Your task to perform on an android device: turn off translation in the chrome app Image 0: 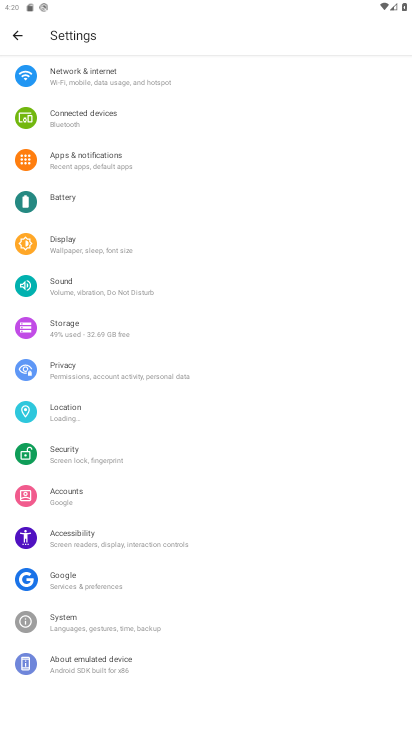
Step 0: drag from (49, 706) to (353, 33)
Your task to perform on an android device: turn off translation in the chrome app Image 1: 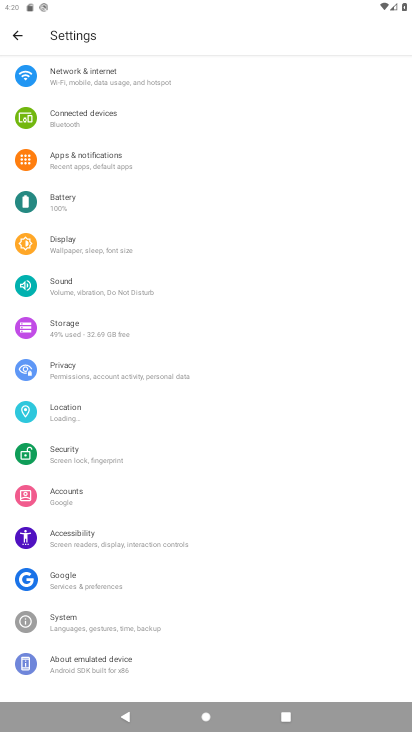
Step 1: click (87, 70)
Your task to perform on an android device: turn off translation in the chrome app Image 2: 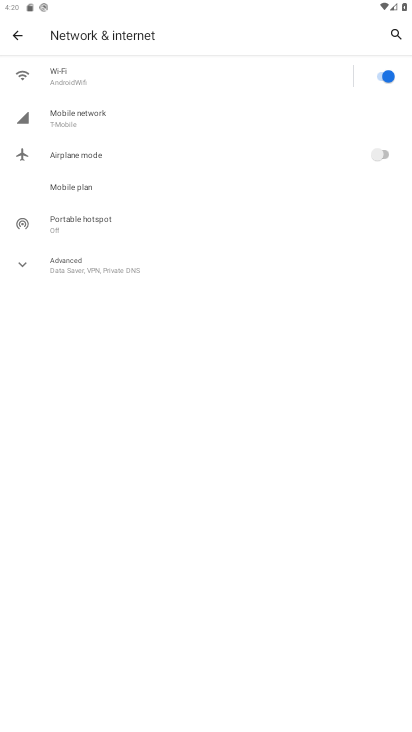
Step 2: press home button
Your task to perform on an android device: turn off translation in the chrome app Image 3: 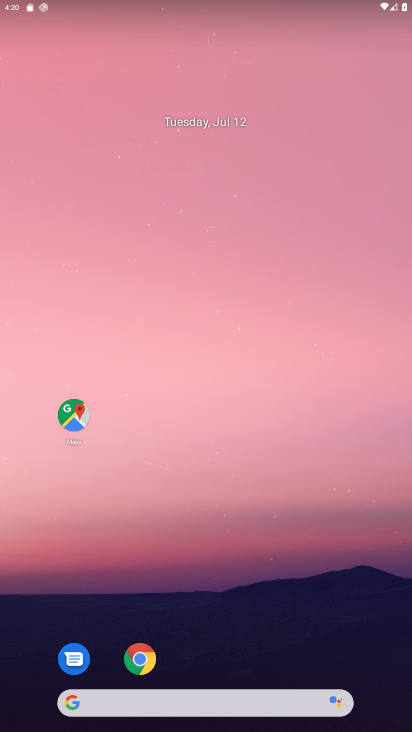
Step 3: click (135, 655)
Your task to perform on an android device: turn off translation in the chrome app Image 4: 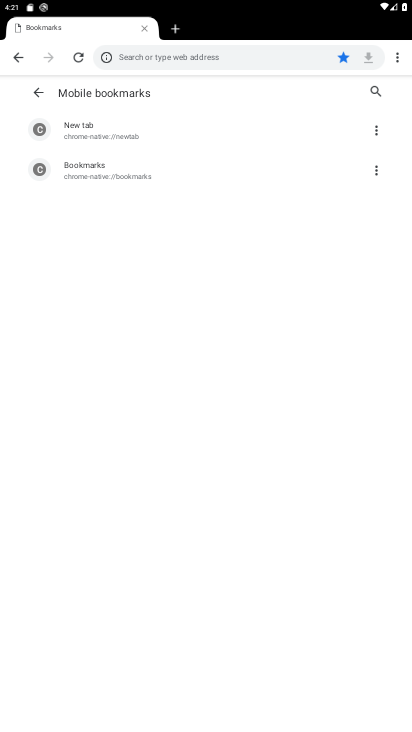
Step 4: click (394, 51)
Your task to perform on an android device: turn off translation in the chrome app Image 5: 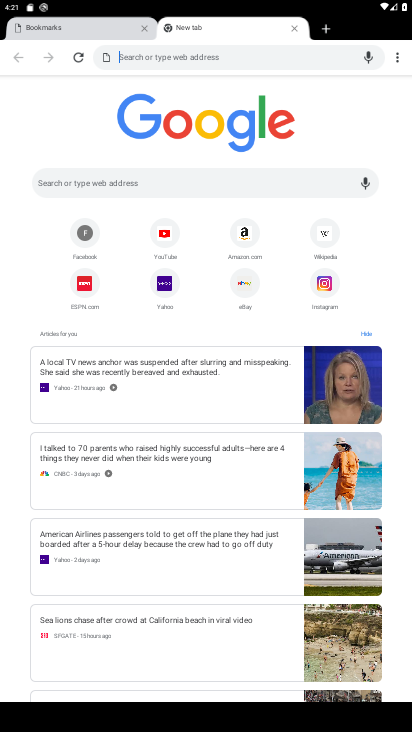
Step 5: click (397, 57)
Your task to perform on an android device: turn off translation in the chrome app Image 6: 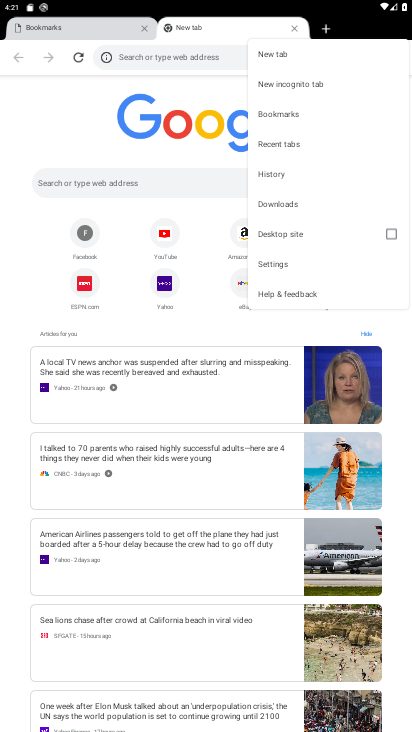
Step 6: click (278, 271)
Your task to perform on an android device: turn off translation in the chrome app Image 7: 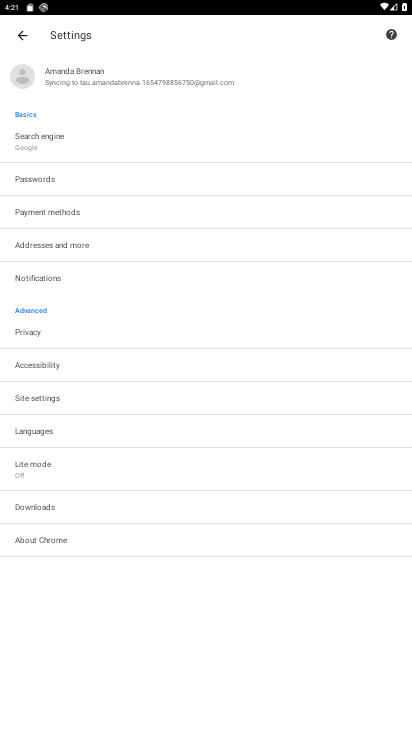
Step 7: click (52, 436)
Your task to perform on an android device: turn off translation in the chrome app Image 8: 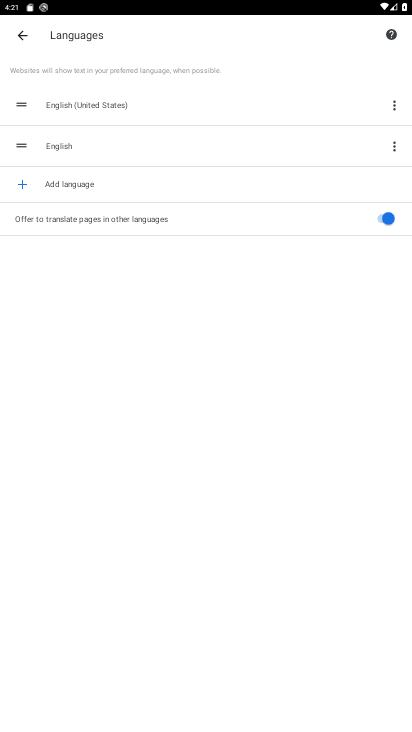
Step 8: click (391, 217)
Your task to perform on an android device: turn off translation in the chrome app Image 9: 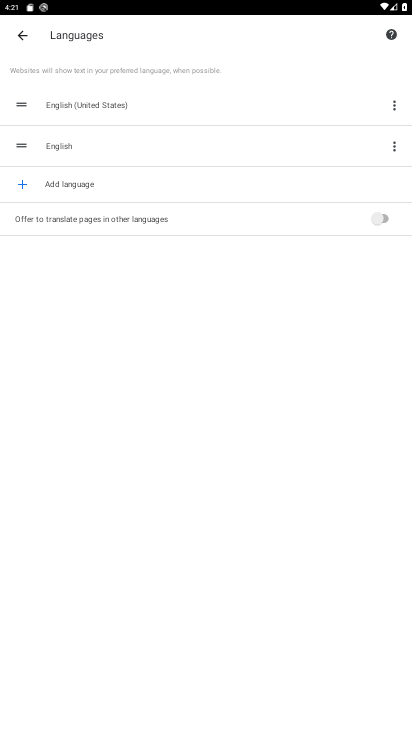
Step 9: task complete